Your task to perform on an android device: Go to display settings Image 0: 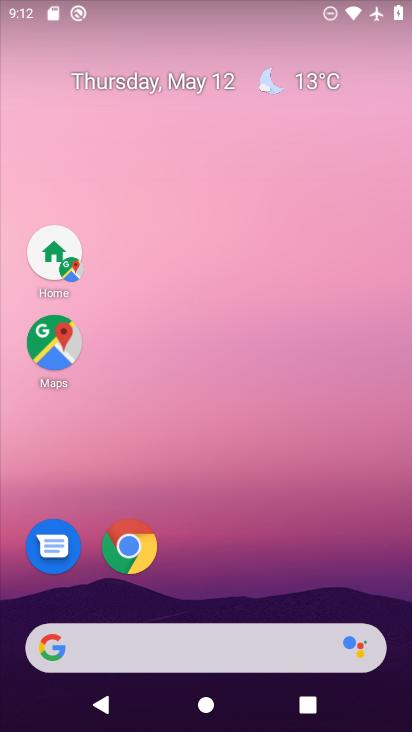
Step 0: drag from (190, 640) to (352, 39)
Your task to perform on an android device: Go to display settings Image 1: 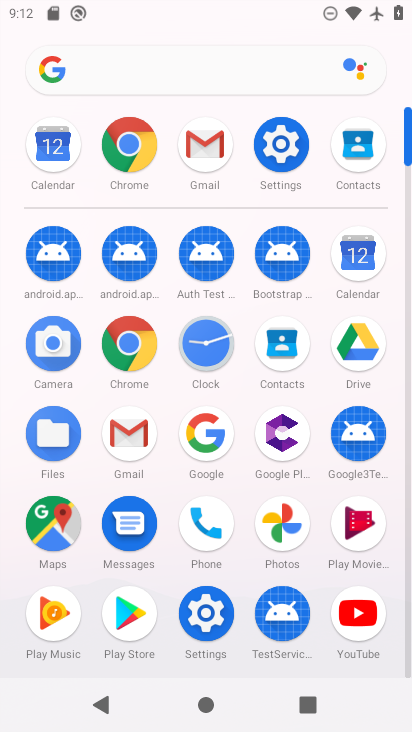
Step 1: click (279, 149)
Your task to perform on an android device: Go to display settings Image 2: 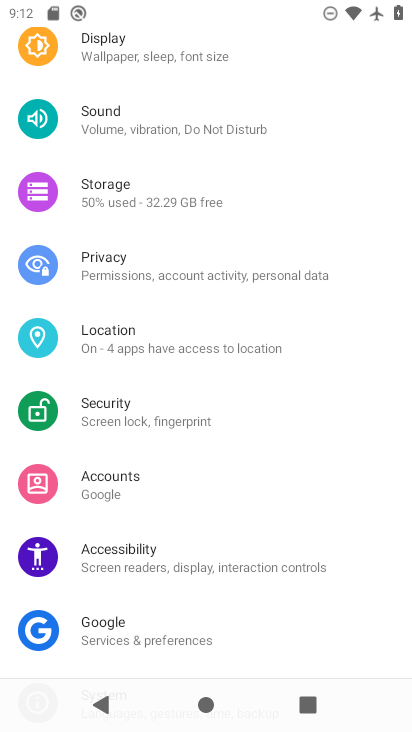
Step 2: click (125, 55)
Your task to perform on an android device: Go to display settings Image 3: 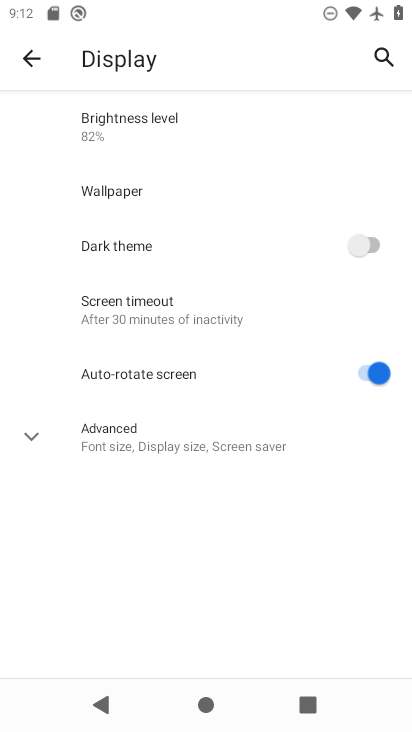
Step 3: task complete